Your task to perform on an android device: What's the weather today? Image 0: 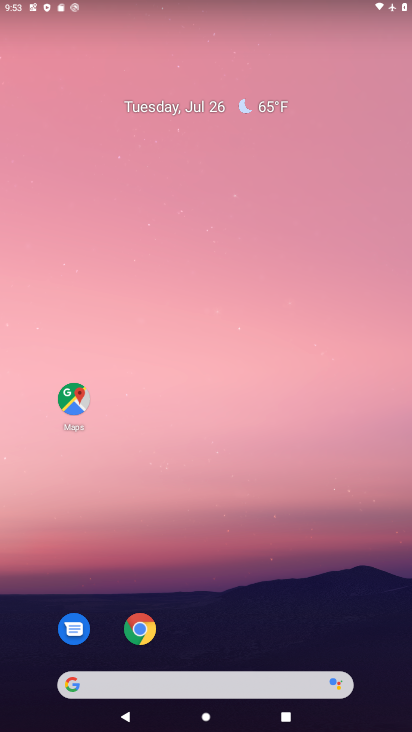
Step 0: drag from (283, 614) to (339, 58)
Your task to perform on an android device: What's the weather today? Image 1: 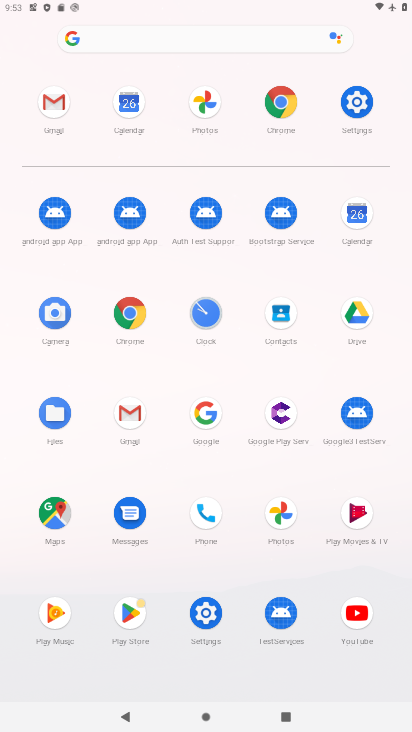
Step 1: click (284, 104)
Your task to perform on an android device: What's the weather today? Image 2: 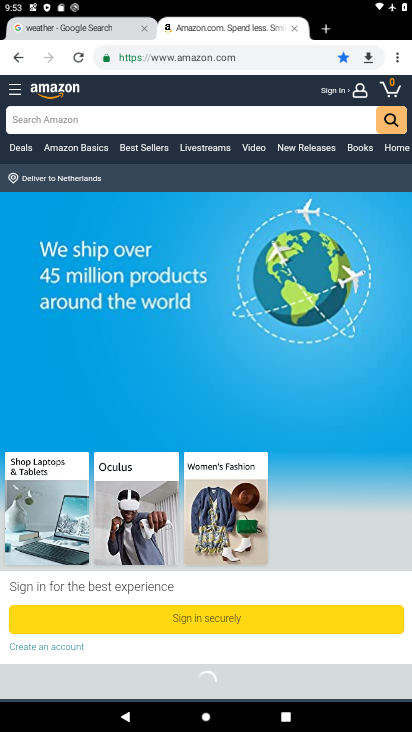
Step 2: click (266, 56)
Your task to perform on an android device: What's the weather today? Image 3: 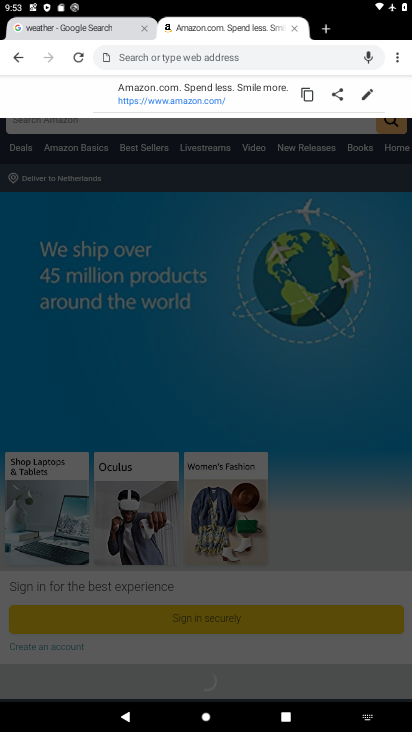
Step 3: type "weather"
Your task to perform on an android device: What's the weather today? Image 4: 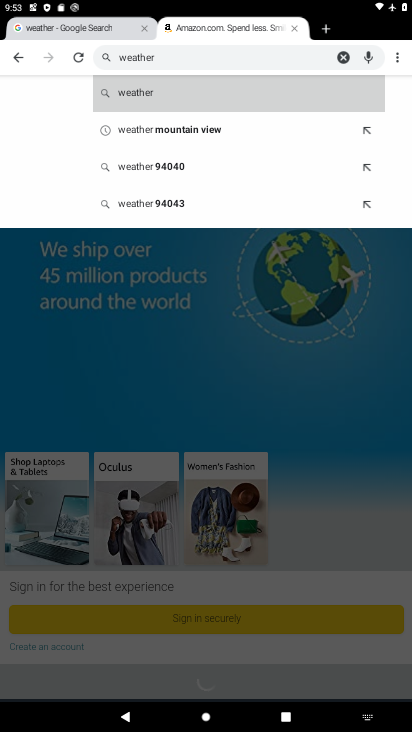
Step 4: click (179, 86)
Your task to perform on an android device: What's the weather today? Image 5: 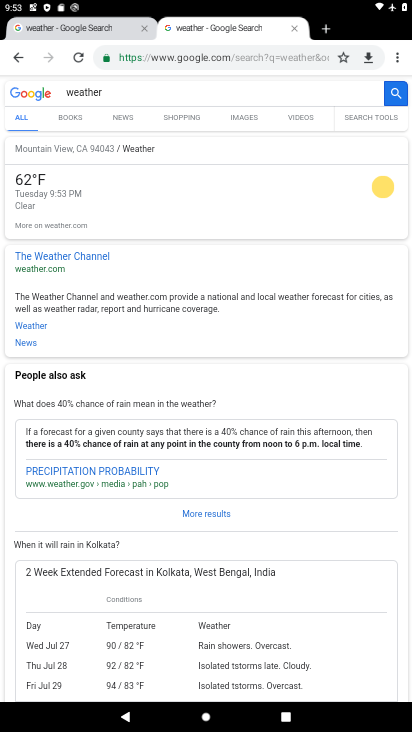
Step 5: task complete